Your task to perform on an android device: turn off translation in the chrome app Image 0: 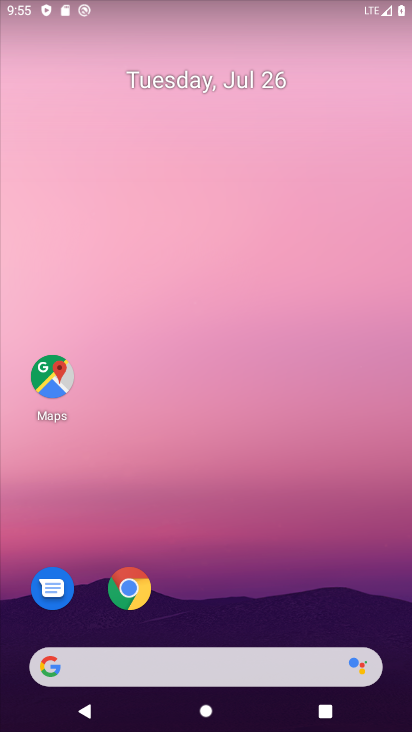
Step 0: click (139, 587)
Your task to perform on an android device: turn off translation in the chrome app Image 1: 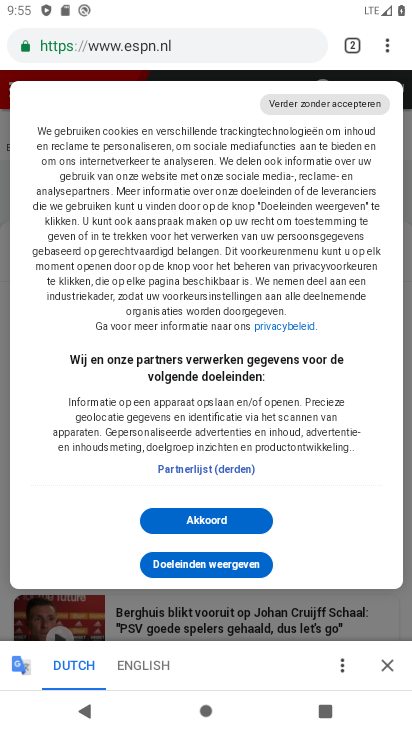
Step 1: click (389, 51)
Your task to perform on an android device: turn off translation in the chrome app Image 2: 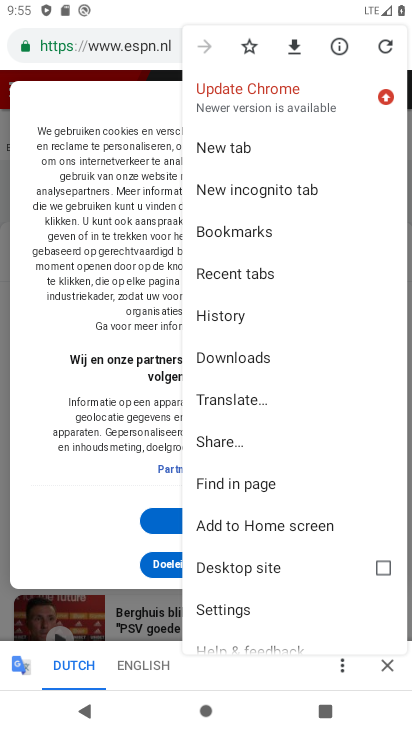
Step 2: click (255, 605)
Your task to perform on an android device: turn off translation in the chrome app Image 3: 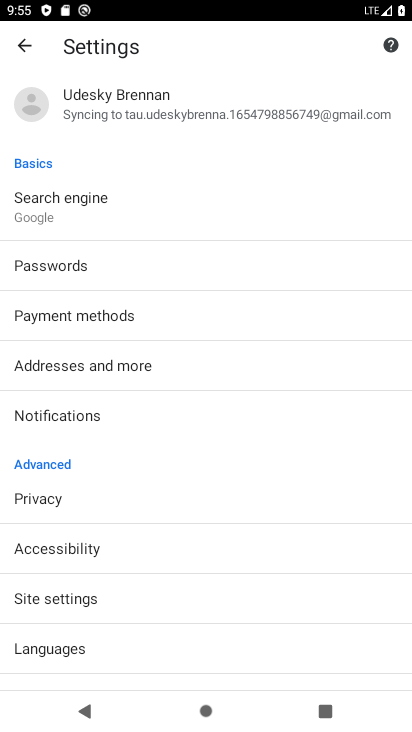
Step 3: click (150, 640)
Your task to perform on an android device: turn off translation in the chrome app Image 4: 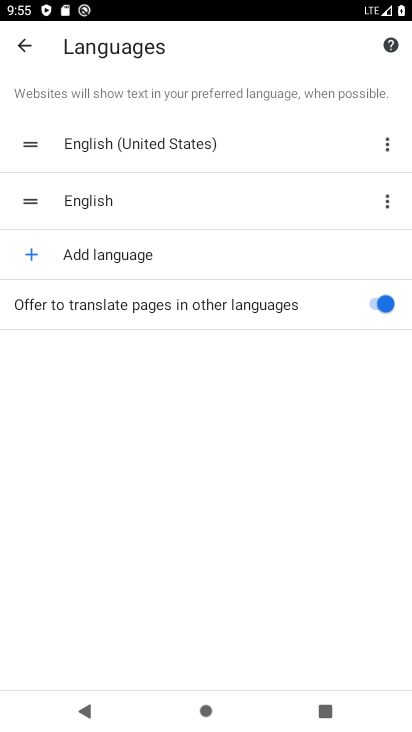
Step 4: click (382, 307)
Your task to perform on an android device: turn off translation in the chrome app Image 5: 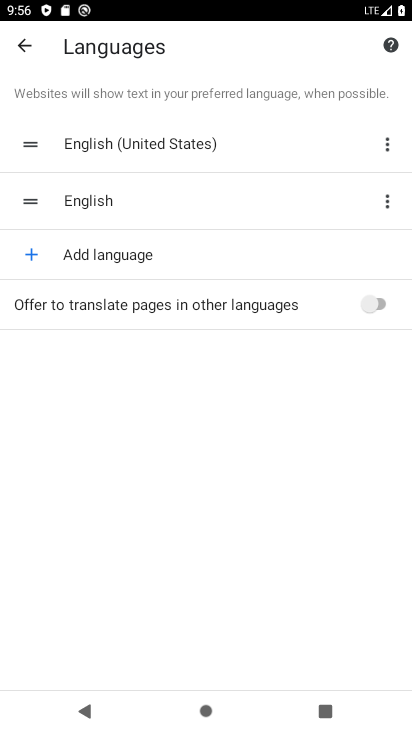
Step 5: task complete